Your task to perform on an android device: move a message to another label in the gmail app Image 0: 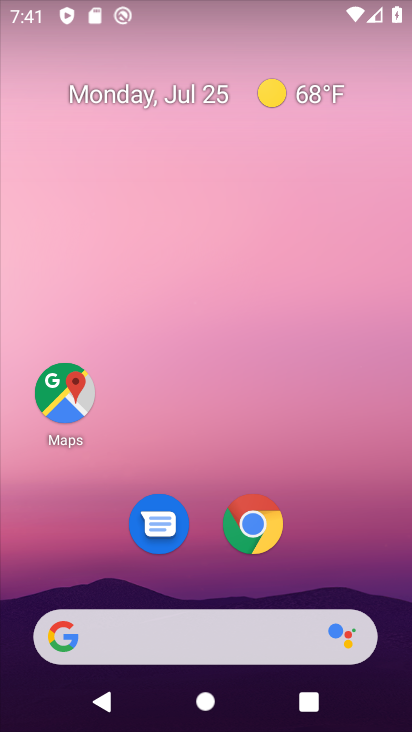
Step 0: drag from (325, 528) to (309, 20)
Your task to perform on an android device: move a message to another label in the gmail app Image 1: 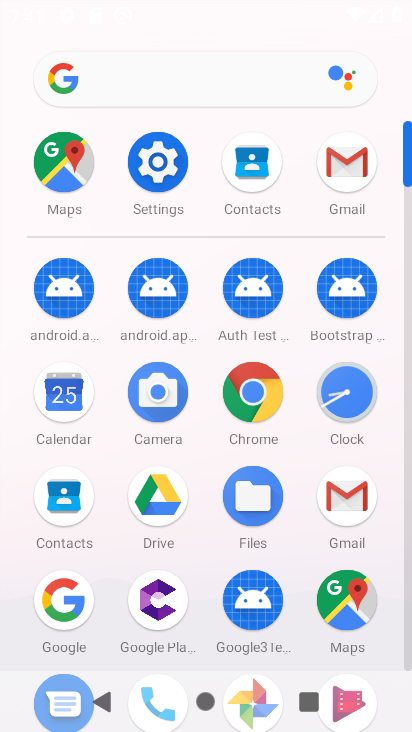
Step 1: click (341, 172)
Your task to perform on an android device: move a message to another label in the gmail app Image 2: 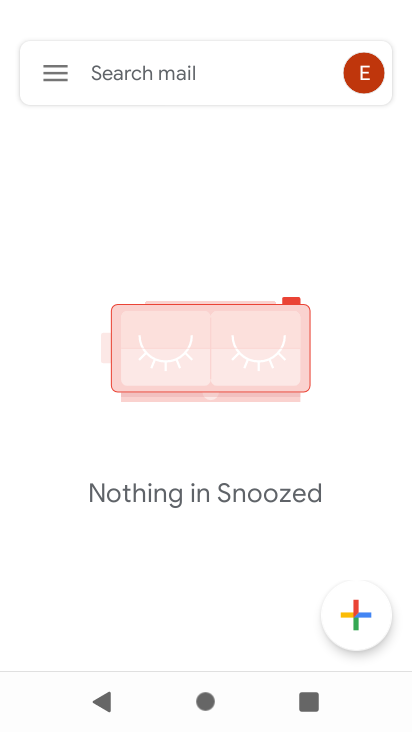
Step 2: click (54, 67)
Your task to perform on an android device: move a message to another label in the gmail app Image 3: 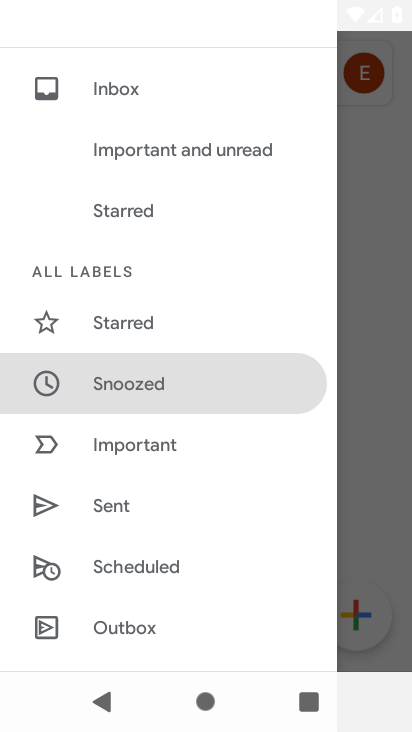
Step 3: drag from (168, 525) to (223, 194)
Your task to perform on an android device: move a message to another label in the gmail app Image 4: 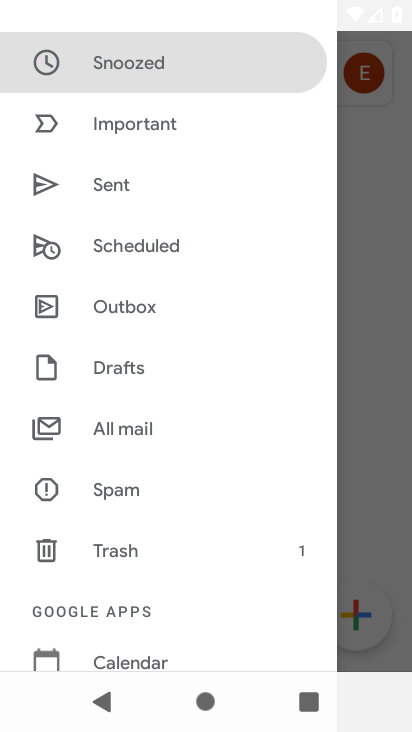
Step 4: click (145, 554)
Your task to perform on an android device: move a message to another label in the gmail app Image 5: 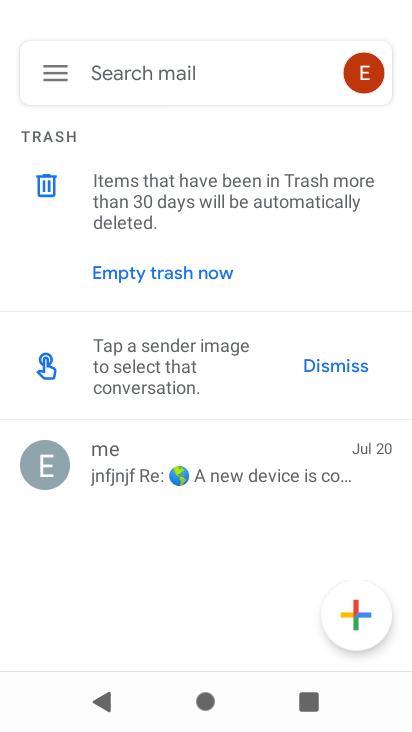
Step 5: click (222, 467)
Your task to perform on an android device: move a message to another label in the gmail app Image 6: 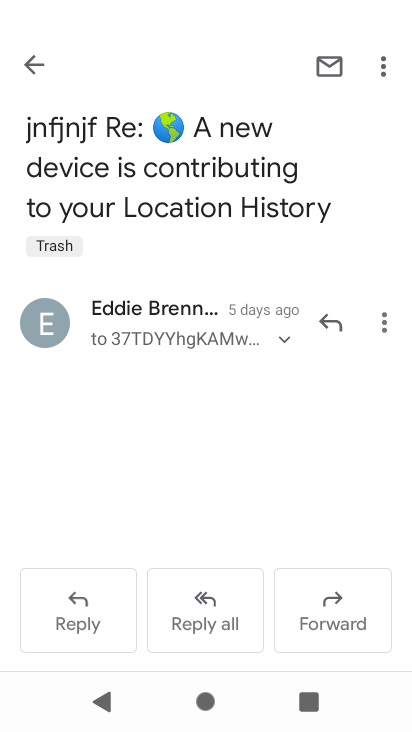
Step 6: click (381, 63)
Your task to perform on an android device: move a message to another label in the gmail app Image 7: 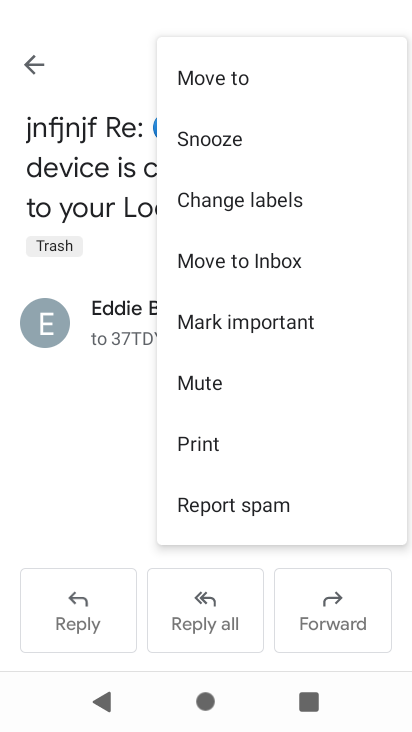
Step 7: click (232, 86)
Your task to perform on an android device: move a message to another label in the gmail app Image 8: 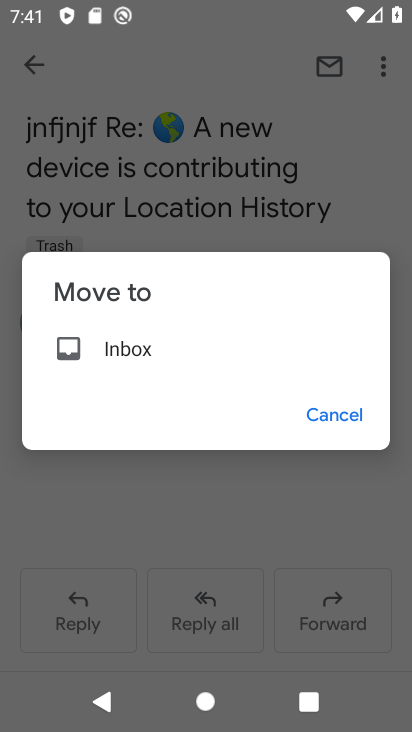
Step 8: click (118, 340)
Your task to perform on an android device: move a message to another label in the gmail app Image 9: 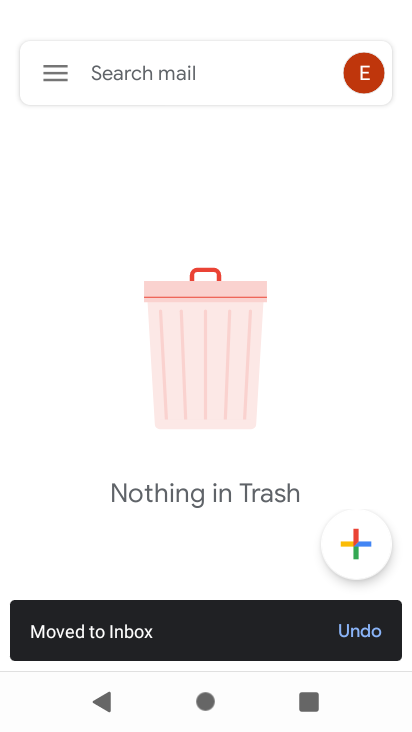
Step 9: task complete